Your task to perform on an android device: What is the recent news? Image 0: 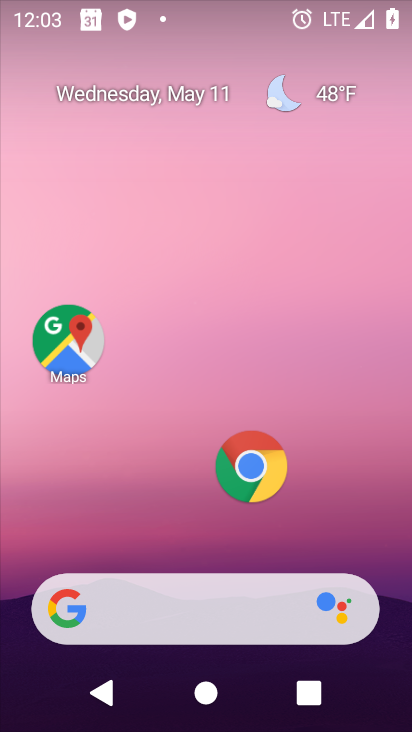
Step 0: click (182, 589)
Your task to perform on an android device: What is the recent news? Image 1: 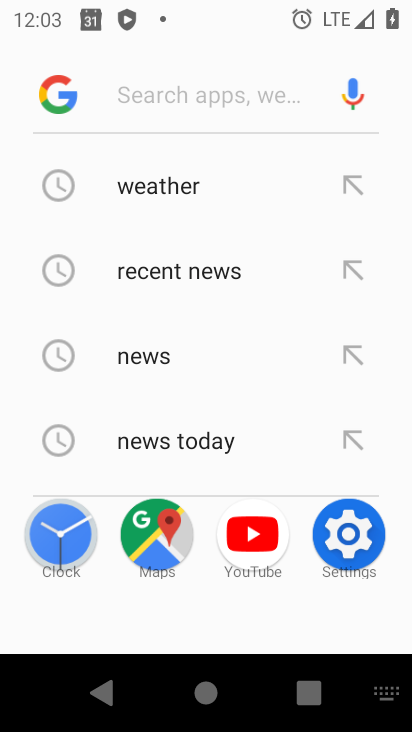
Step 1: click (175, 278)
Your task to perform on an android device: What is the recent news? Image 2: 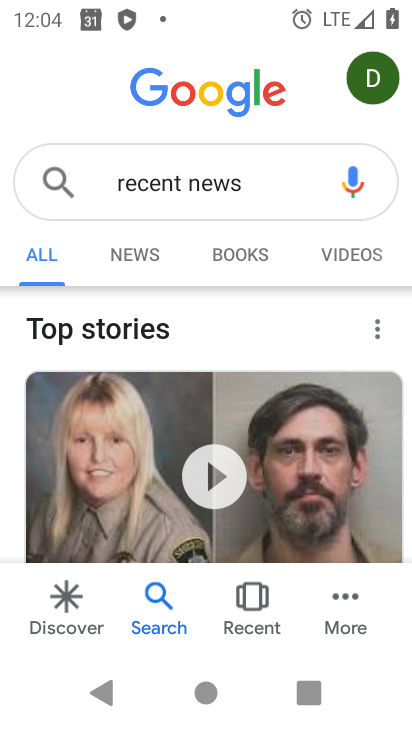
Step 2: task complete